Your task to perform on an android device: open a bookmark in the chrome app Image 0: 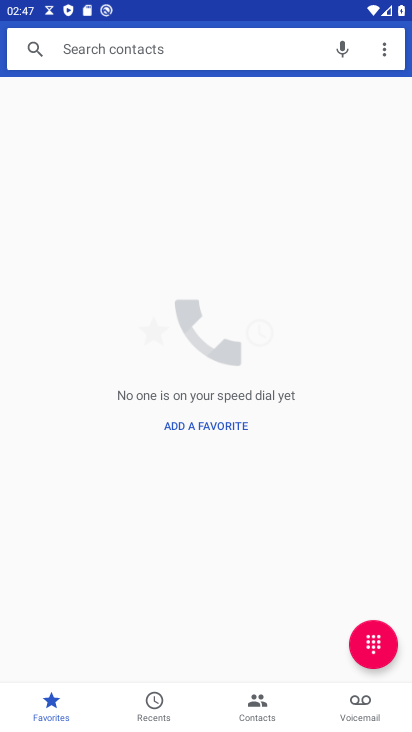
Step 0: press home button
Your task to perform on an android device: open a bookmark in the chrome app Image 1: 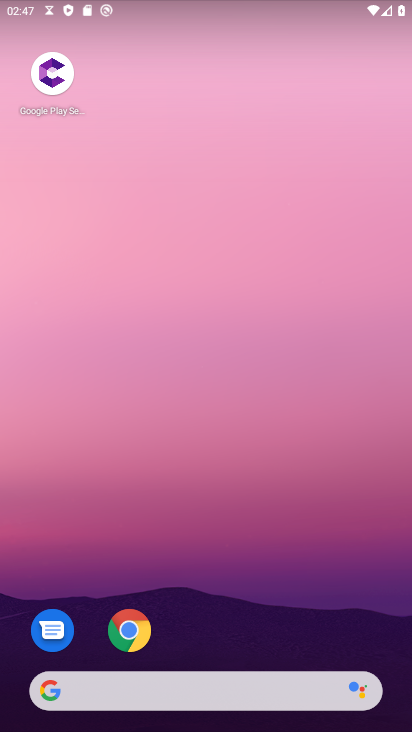
Step 1: click (123, 629)
Your task to perform on an android device: open a bookmark in the chrome app Image 2: 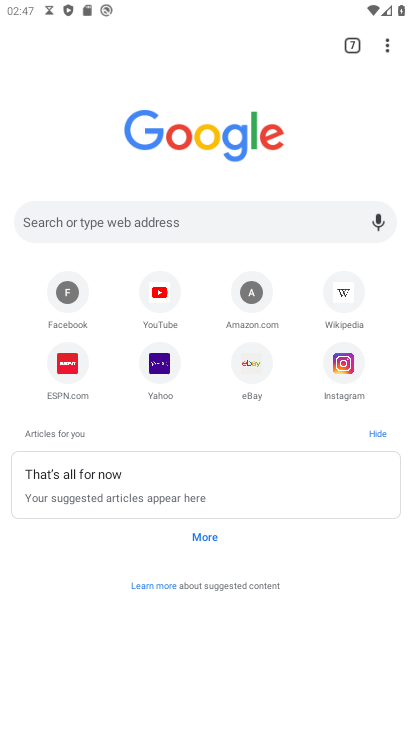
Step 2: click (388, 48)
Your task to perform on an android device: open a bookmark in the chrome app Image 3: 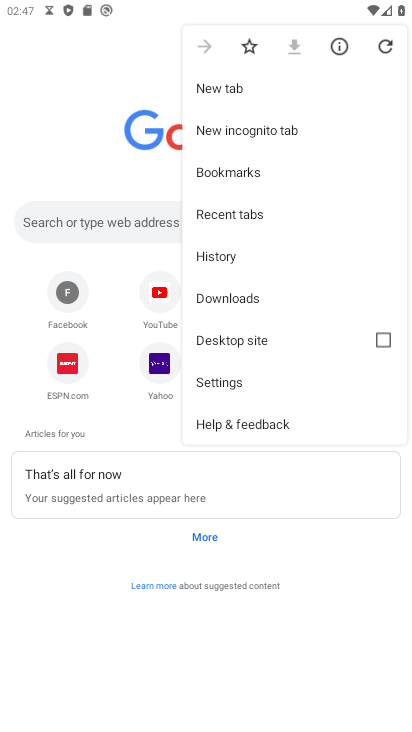
Step 3: click (228, 172)
Your task to perform on an android device: open a bookmark in the chrome app Image 4: 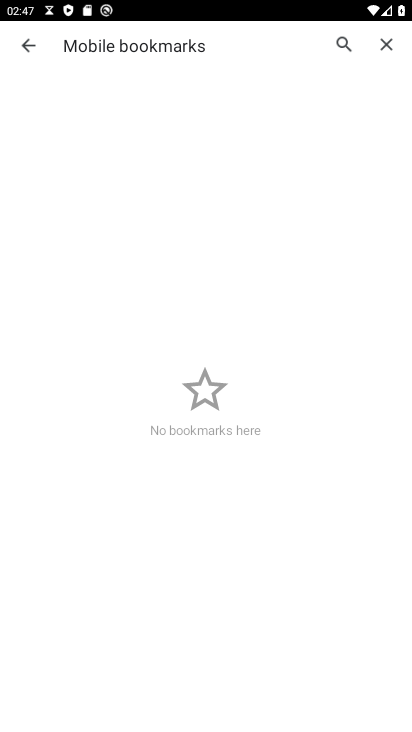
Step 4: task complete